Your task to perform on an android device: choose inbox layout in the gmail app Image 0: 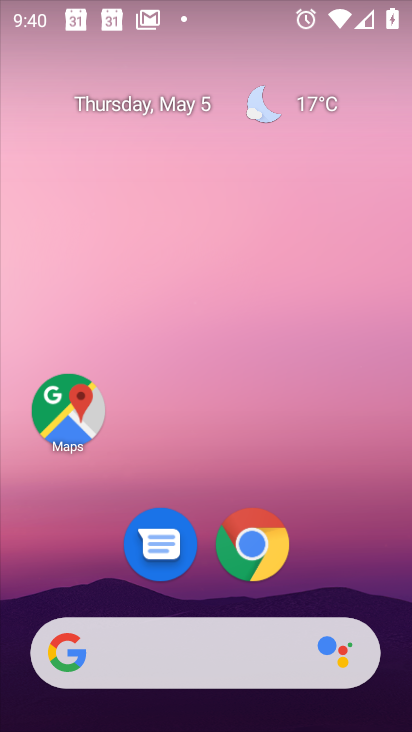
Step 0: drag from (366, 531) to (319, 154)
Your task to perform on an android device: choose inbox layout in the gmail app Image 1: 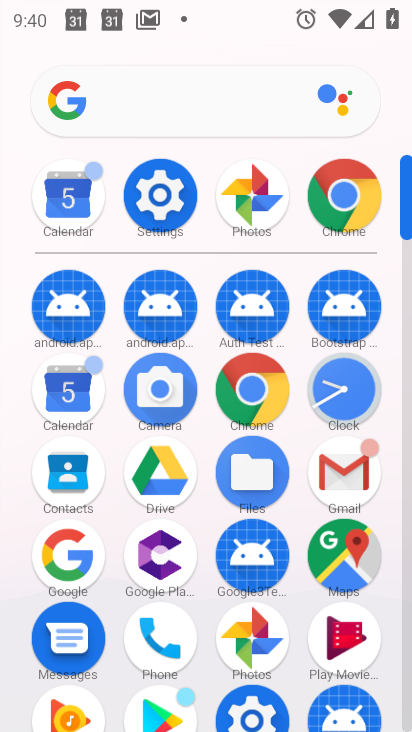
Step 1: click (355, 465)
Your task to perform on an android device: choose inbox layout in the gmail app Image 2: 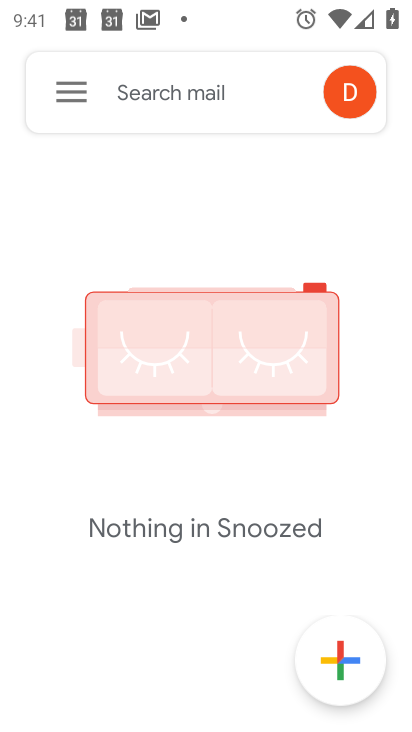
Step 2: click (80, 87)
Your task to perform on an android device: choose inbox layout in the gmail app Image 3: 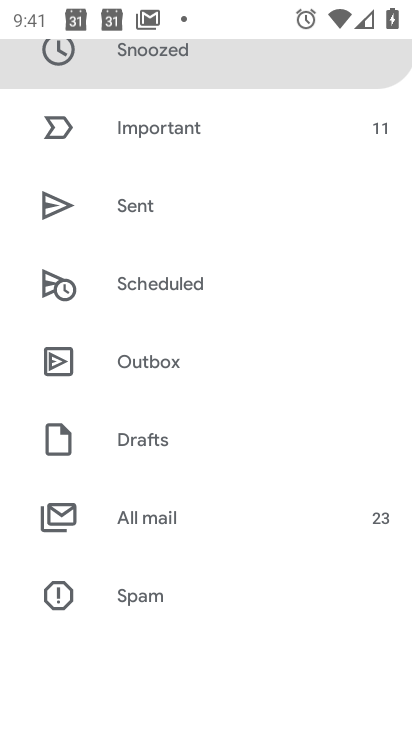
Step 3: drag from (107, 201) to (232, 710)
Your task to perform on an android device: choose inbox layout in the gmail app Image 4: 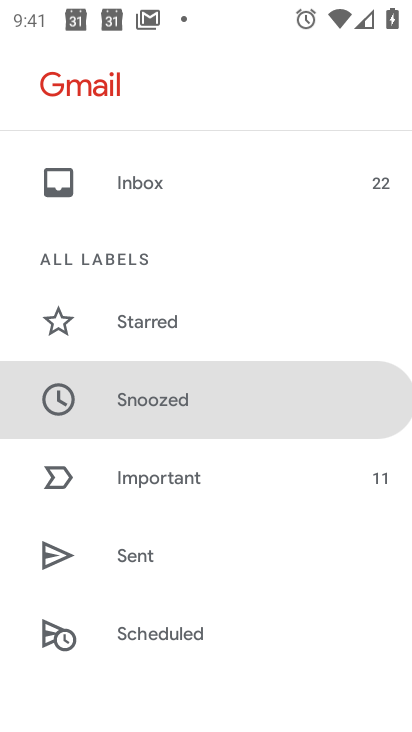
Step 4: click (196, 196)
Your task to perform on an android device: choose inbox layout in the gmail app Image 5: 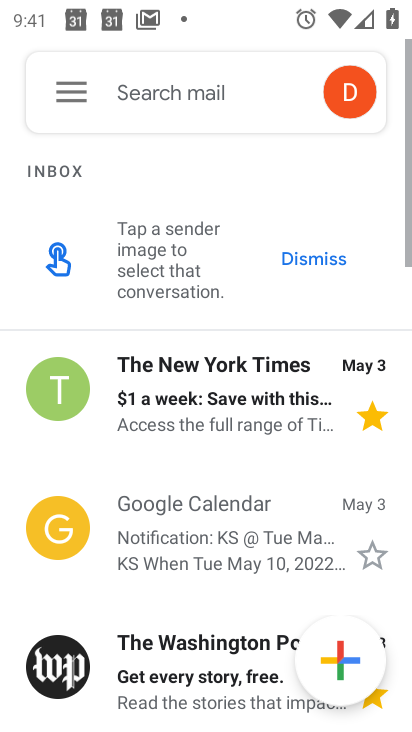
Step 5: task complete